Your task to perform on an android device: Go to Android settings Image 0: 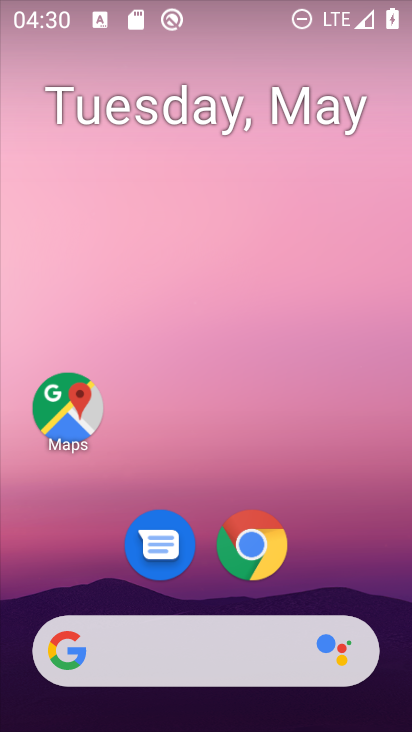
Step 0: drag from (396, 599) to (323, 149)
Your task to perform on an android device: Go to Android settings Image 1: 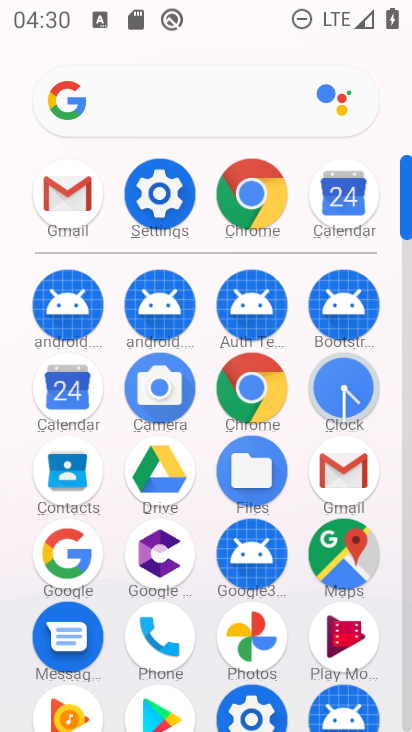
Step 1: click (405, 671)
Your task to perform on an android device: Go to Android settings Image 2: 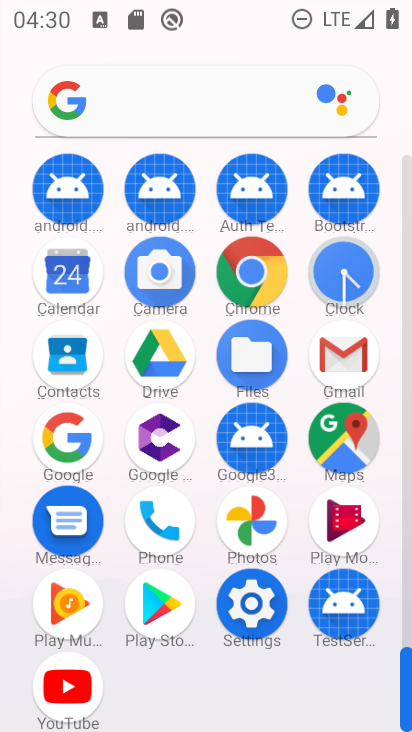
Step 2: click (250, 609)
Your task to perform on an android device: Go to Android settings Image 3: 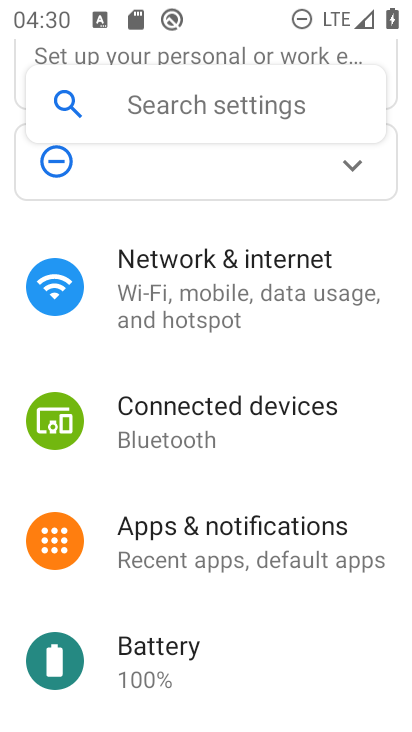
Step 3: drag from (340, 636) to (278, 104)
Your task to perform on an android device: Go to Android settings Image 4: 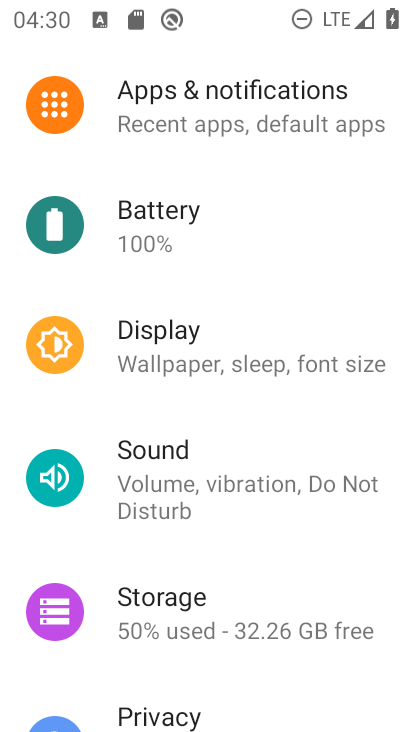
Step 4: drag from (319, 620) to (319, 101)
Your task to perform on an android device: Go to Android settings Image 5: 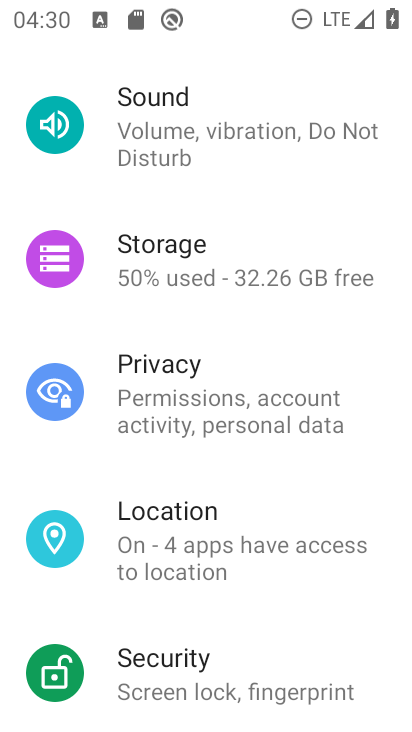
Step 5: drag from (313, 609) to (358, 165)
Your task to perform on an android device: Go to Android settings Image 6: 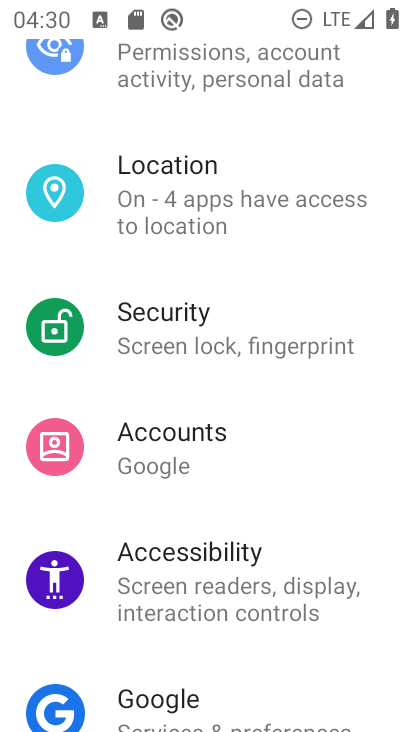
Step 6: drag from (338, 642) to (318, 231)
Your task to perform on an android device: Go to Android settings Image 7: 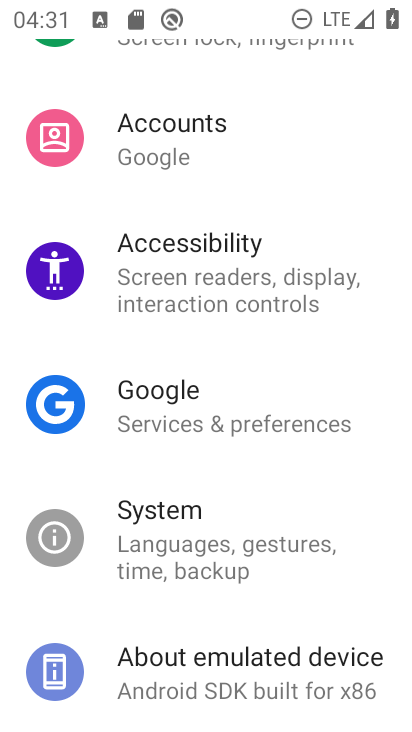
Step 7: click (186, 680)
Your task to perform on an android device: Go to Android settings Image 8: 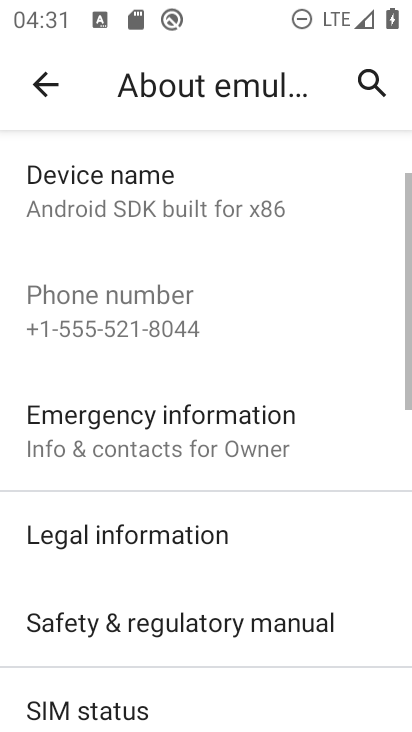
Step 8: task complete